Your task to perform on an android device: Open Google Maps and go to "Timeline" Image 0: 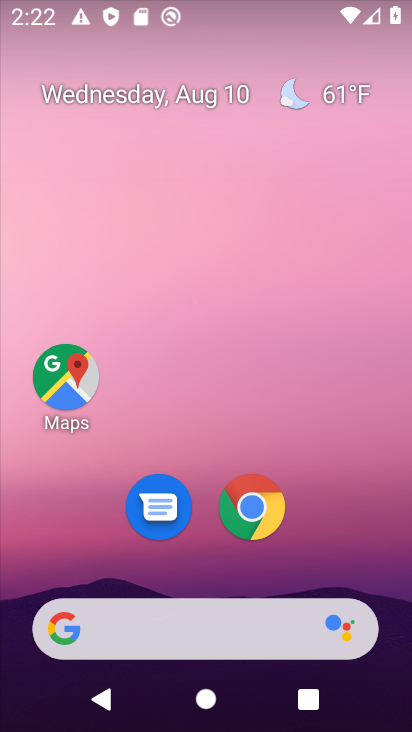
Step 0: drag from (345, 534) to (300, 0)
Your task to perform on an android device: Open Google Maps and go to "Timeline" Image 1: 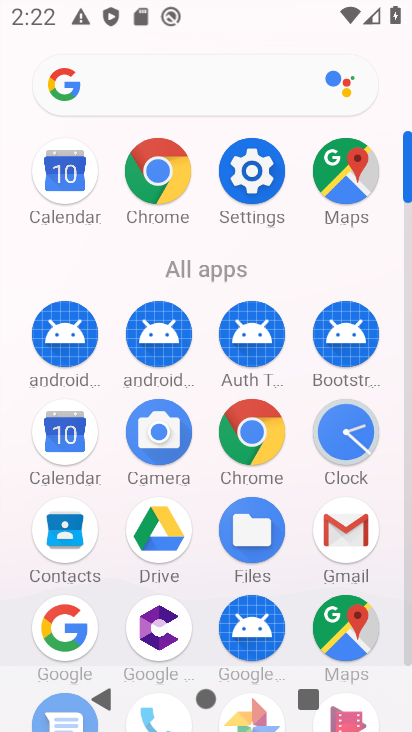
Step 1: click (339, 622)
Your task to perform on an android device: Open Google Maps and go to "Timeline" Image 2: 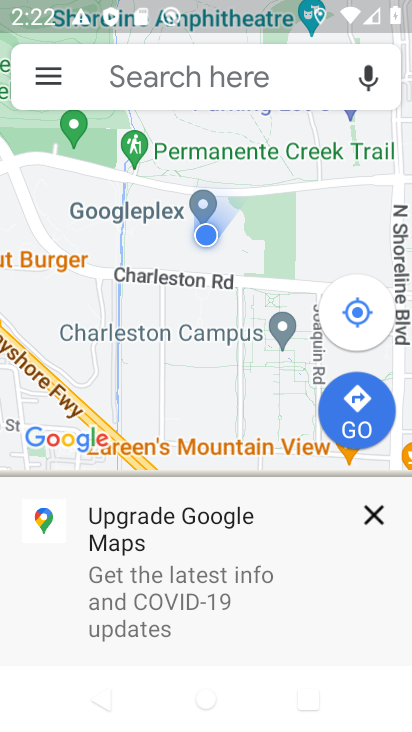
Step 2: task complete